Your task to perform on an android device: Search for sushi restaurants on Maps Image 0: 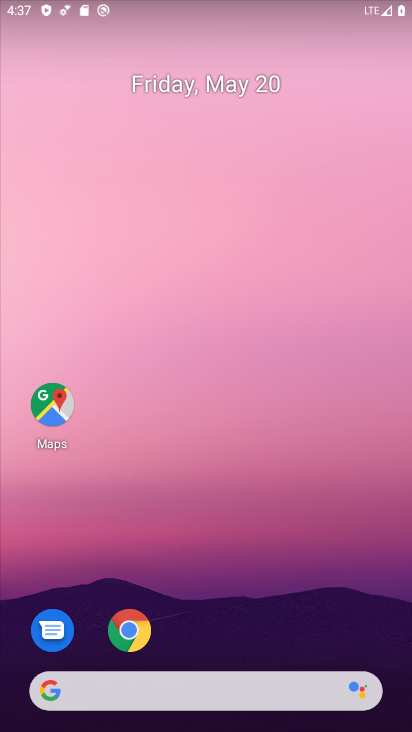
Step 0: click (52, 403)
Your task to perform on an android device: Search for sushi restaurants on Maps Image 1: 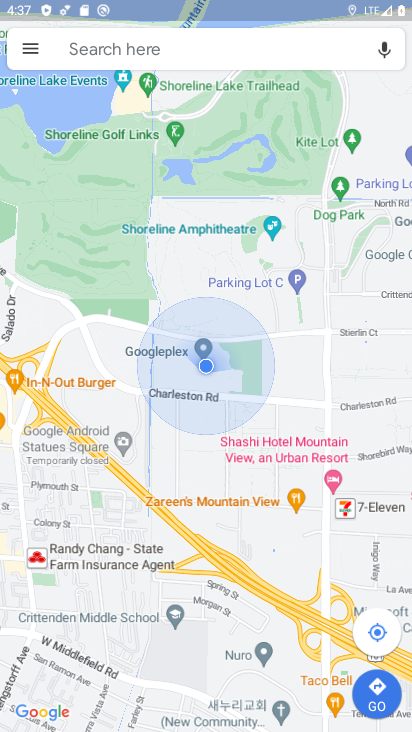
Step 1: click (204, 55)
Your task to perform on an android device: Search for sushi restaurants on Maps Image 2: 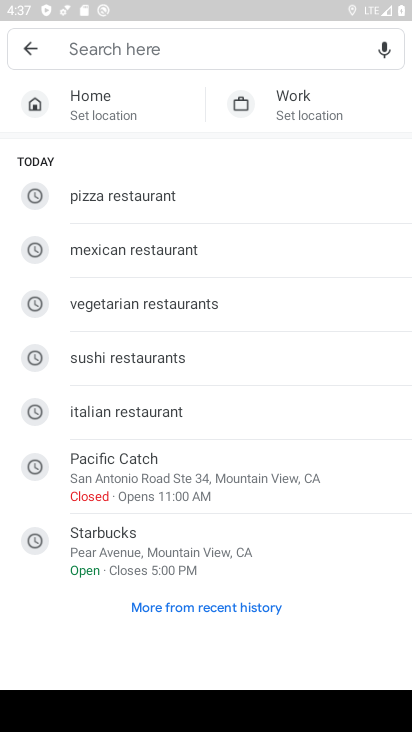
Step 2: click (138, 351)
Your task to perform on an android device: Search for sushi restaurants on Maps Image 3: 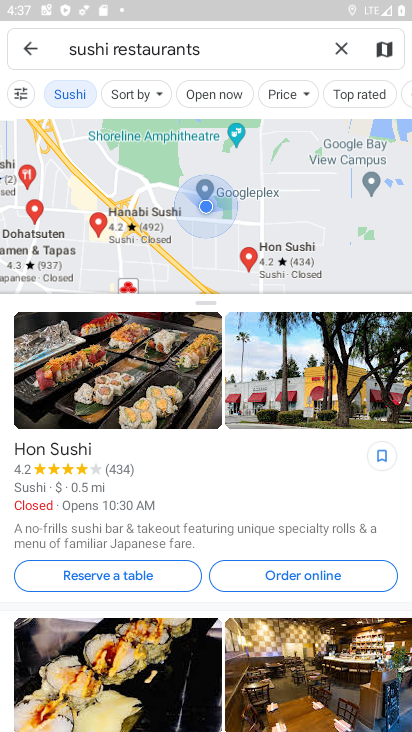
Step 3: task complete